Your task to perform on an android device: turn off notifications settings in the gmail app Image 0: 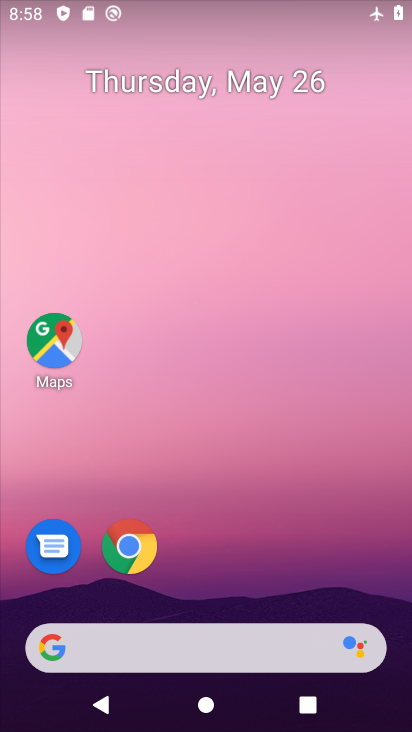
Step 0: drag from (264, 572) to (197, 51)
Your task to perform on an android device: turn off notifications settings in the gmail app Image 1: 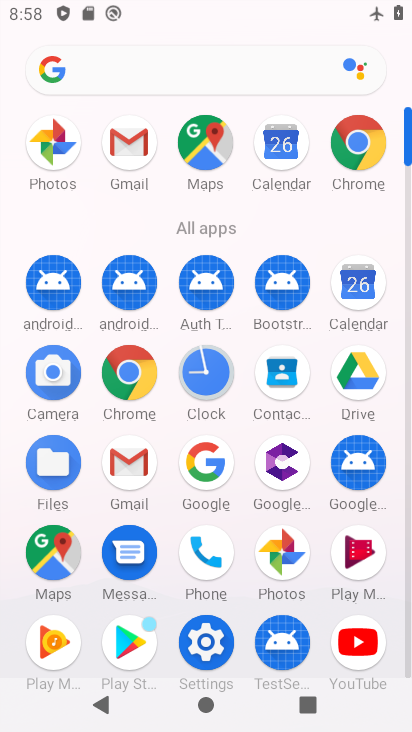
Step 1: click (112, 142)
Your task to perform on an android device: turn off notifications settings in the gmail app Image 2: 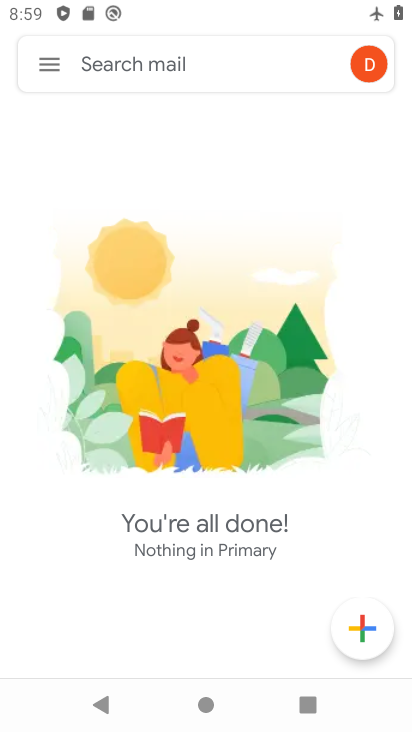
Step 2: click (41, 73)
Your task to perform on an android device: turn off notifications settings in the gmail app Image 3: 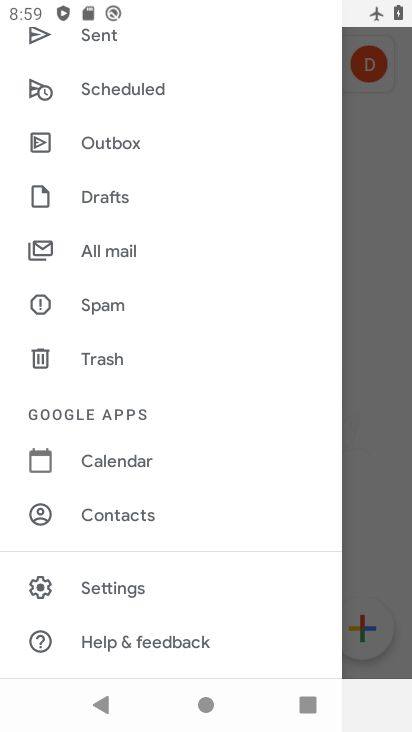
Step 3: click (95, 588)
Your task to perform on an android device: turn off notifications settings in the gmail app Image 4: 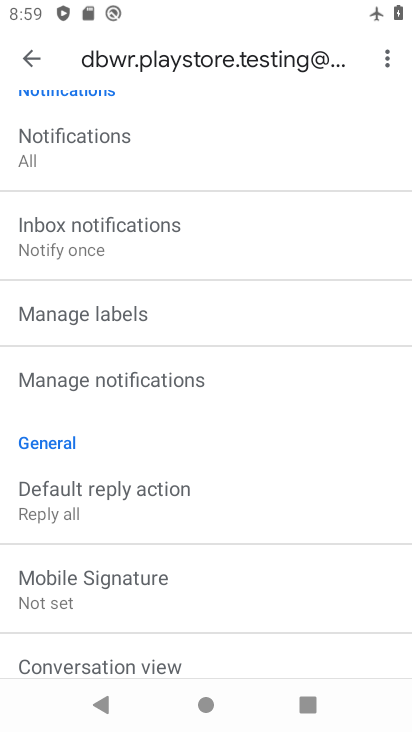
Step 4: click (145, 378)
Your task to perform on an android device: turn off notifications settings in the gmail app Image 5: 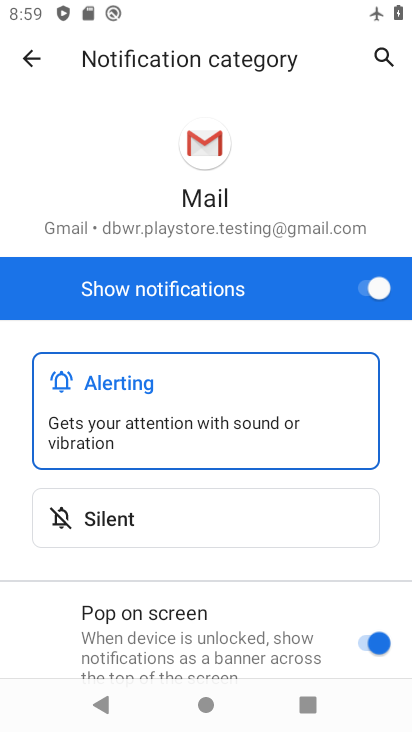
Step 5: drag from (273, 592) to (249, 297)
Your task to perform on an android device: turn off notifications settings in the gmail app Image 6: 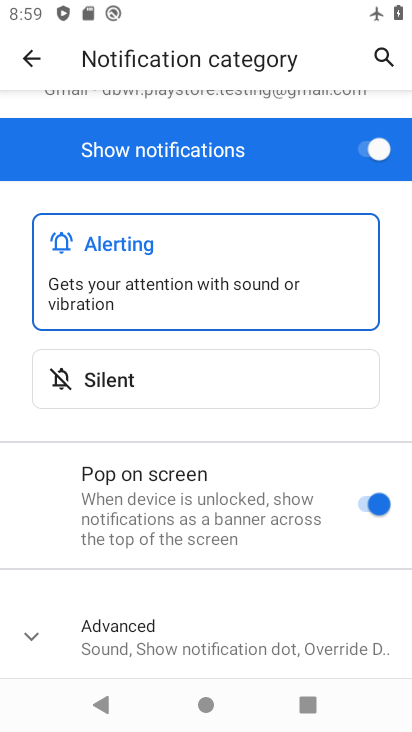
Step 6: click (370, 525)
Your task to perform on an android device: turn off notifications settings in the gmail app Image 7: 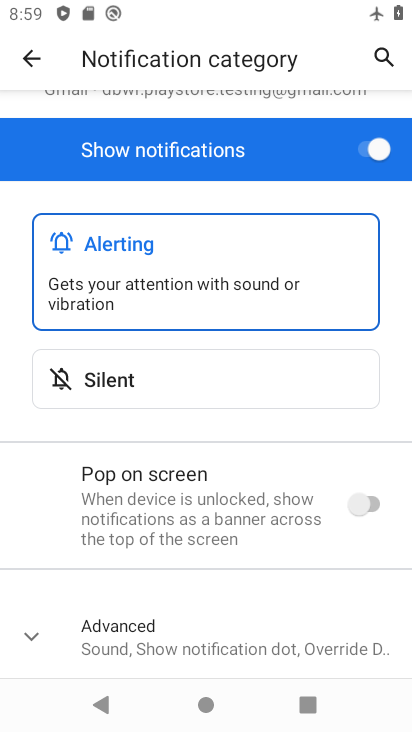
Step 7: task complete